Your task to perform on an android device: Go to wifi settings Image 0: 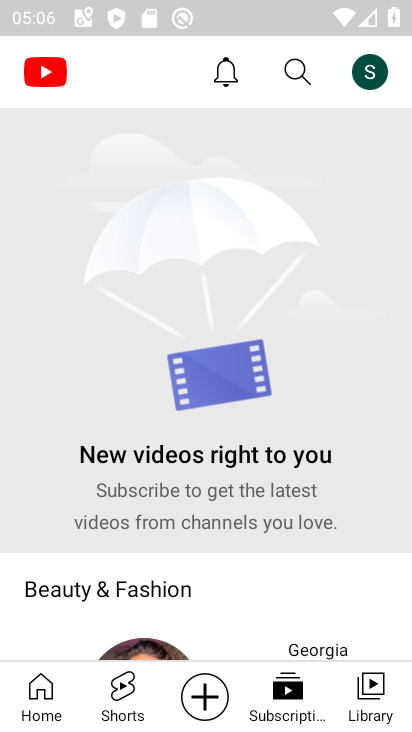
Step 0: press back button
Your task to perform on an android device: Go to wifi settings Image 1: 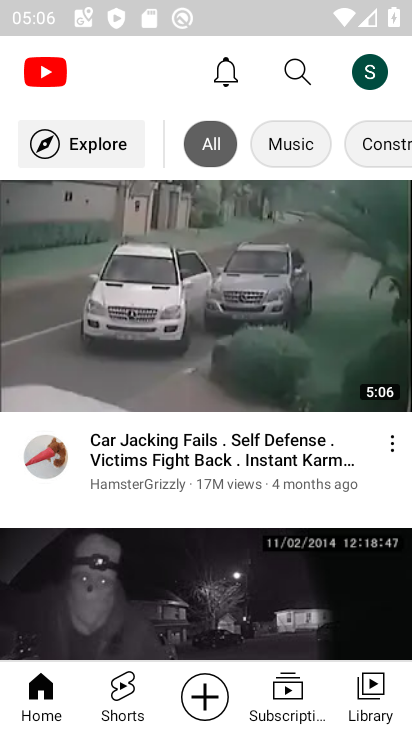
Step 1: drag from (121, 17) to (71, 582)
Your task to perform on an android device: Go to wifi settings Image 2: 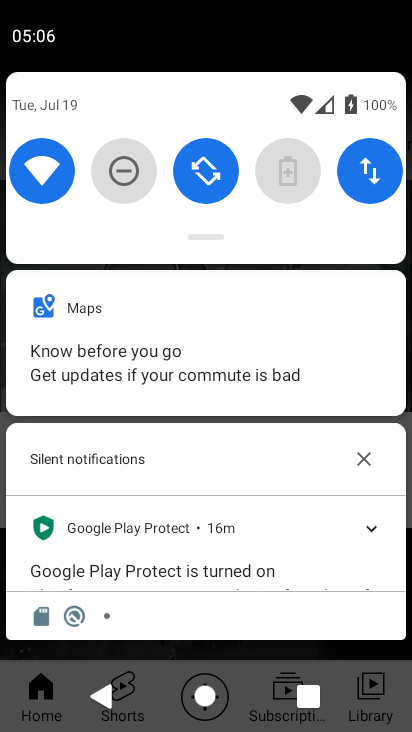
Step 2: click (32, 175)
Your task to perform on an android device: Go to wifi settings Image 3: 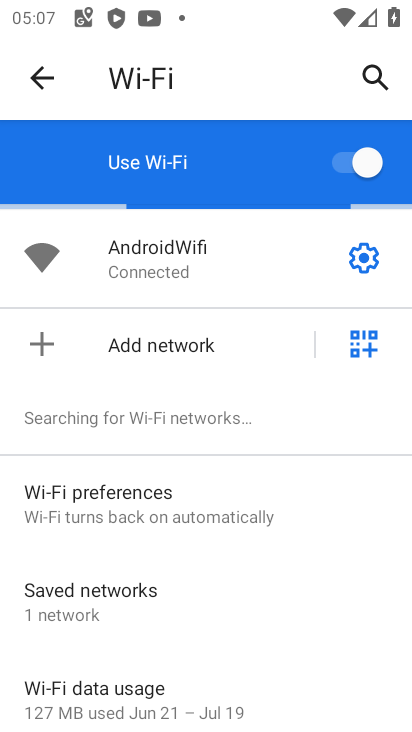
Step 3: task complete